Your task to perform on an android device: Open notification settings Image 0: 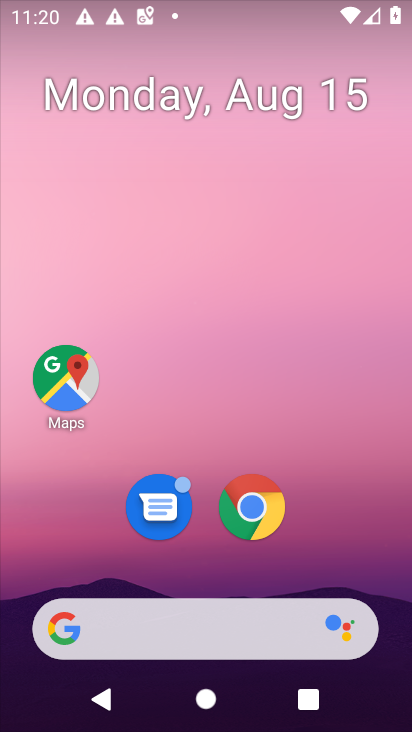
Step 0: drag from (206, 567) to (202, 60)
Your task to perform on an android device: Open notification settings Image 1: 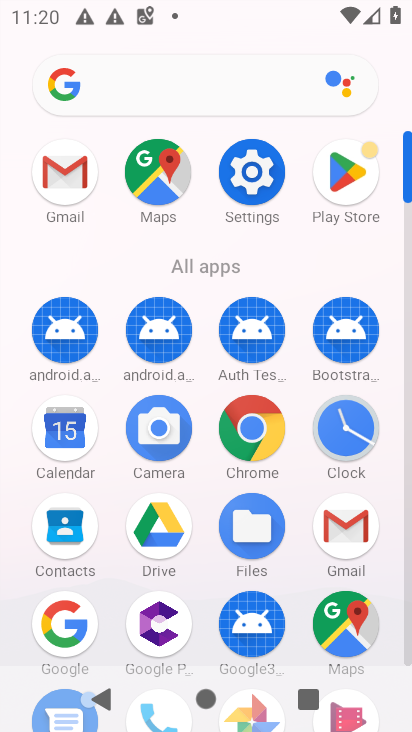
Step 1: click (251, 172)
Your task to perform on an android device: Open notification settings Image 2: 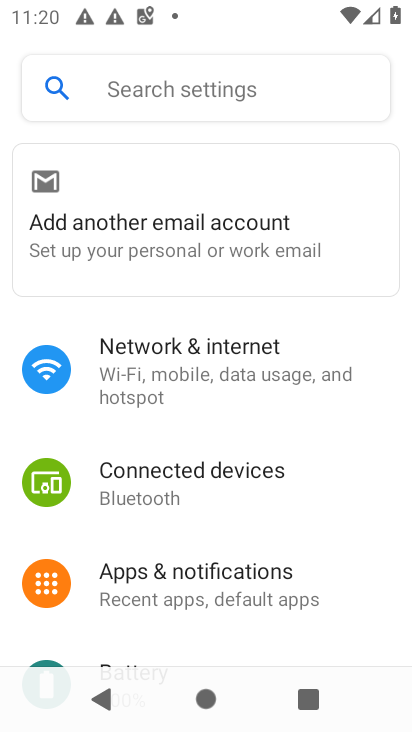
Step 2: click (194, 570)
Your task to perform on an android device: Open notification settings Image 3: 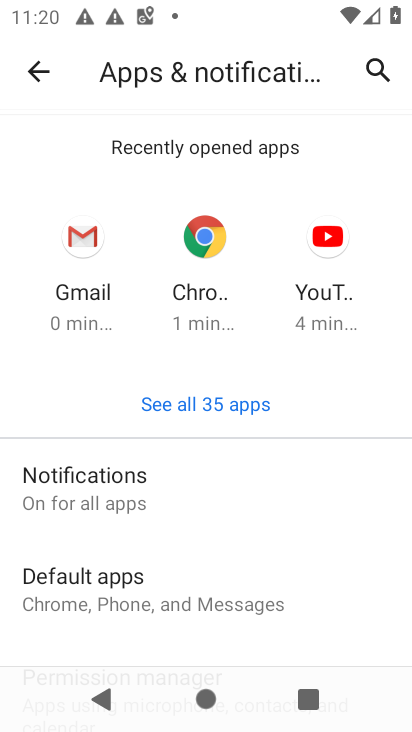
Step 3: task complete